Your task to perform on an android device: Go to display settings Image 0: 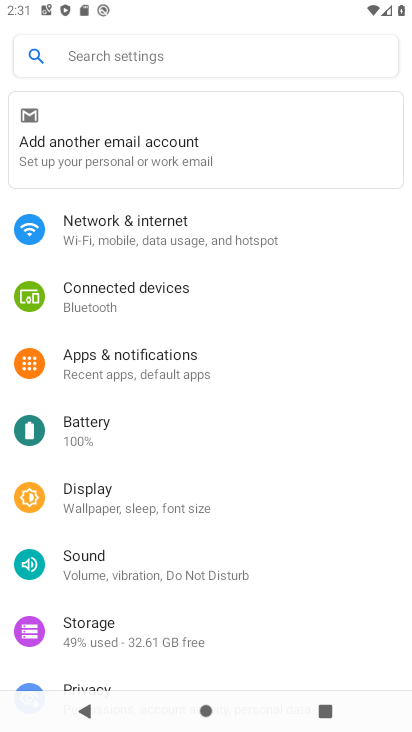
Step 0: click (198, 502)
Your task to perform on an android device: Go to display settings Image 1: 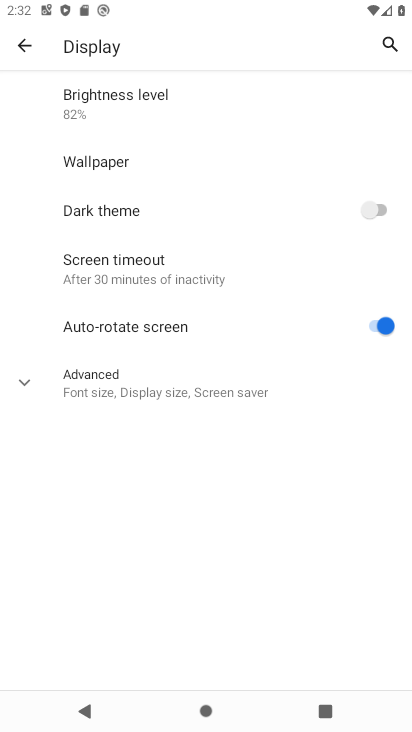
Step 1: task complete